Your task to perform on an android device: Turn off the flashlight Image 0: 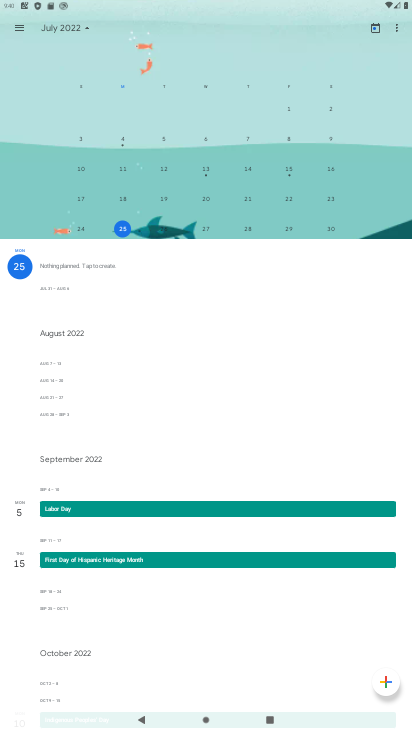
Step 0: press home button
Your task to perform on an android device: Turn off the flashlight Image 1: 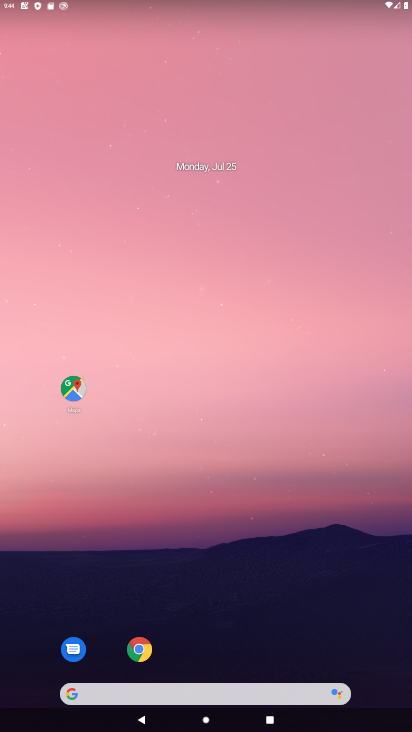
Step 1: drag from (229, 632) to (150, 0)
Your task to perform on an android device: Turn off the flashlight Image 2: 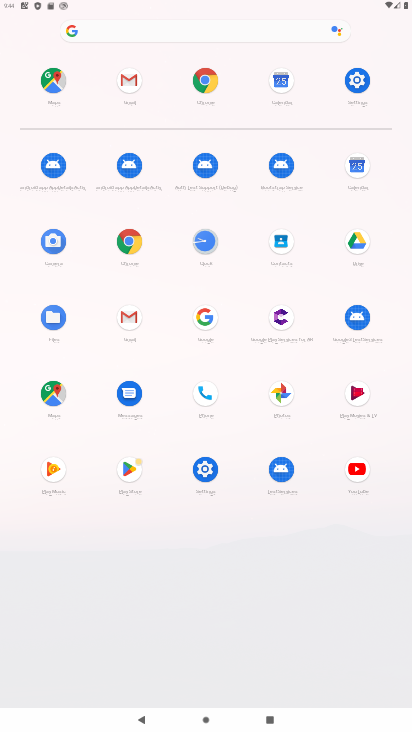
Step 2: click (354, 84)
Your task to perform on an android device: Turn off the flashlight Image 3: 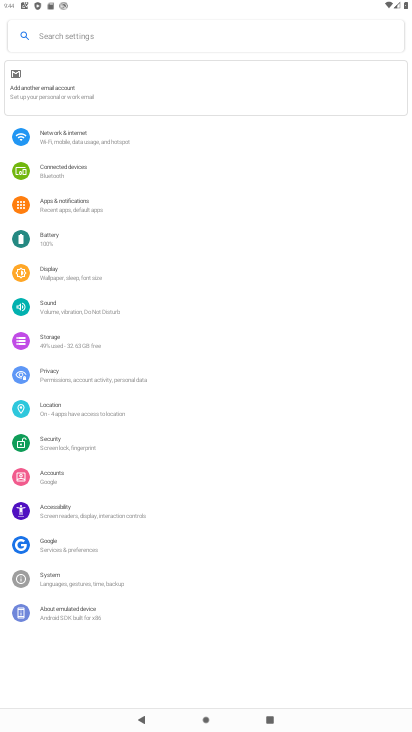
Step 3: task complete